Your task to perform on an android device: Open location settings Image 0: 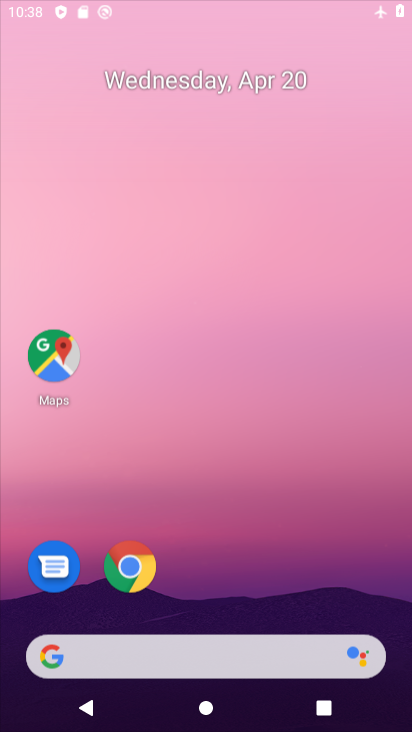
Step 0: click (226, 434)
Your task to perform on an android device: Open location settings Image 1: 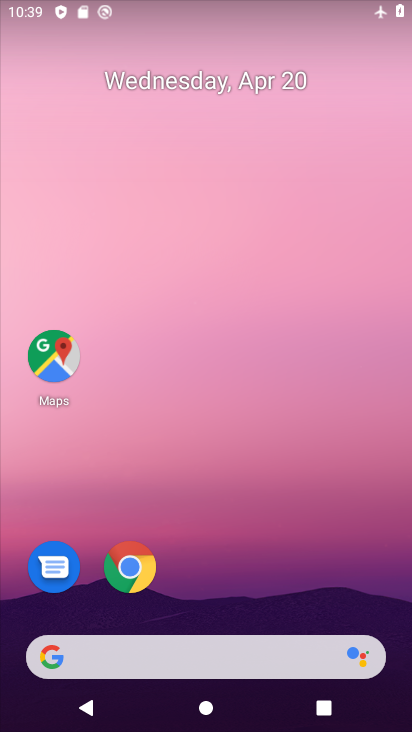
Step 1: drag from (257, 531) to (298, 283)
Your task to perform on an android device: Open location settings Image 2: 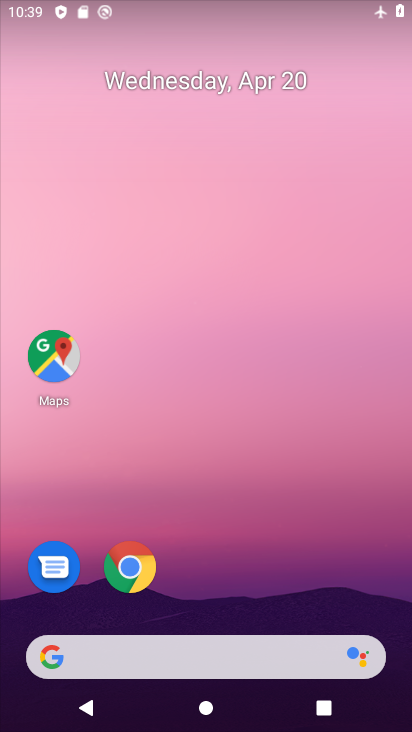
Step 2: drag from (253, 572) to (254, 369)
Your task to perform on an android device: Open location settings Image 3: 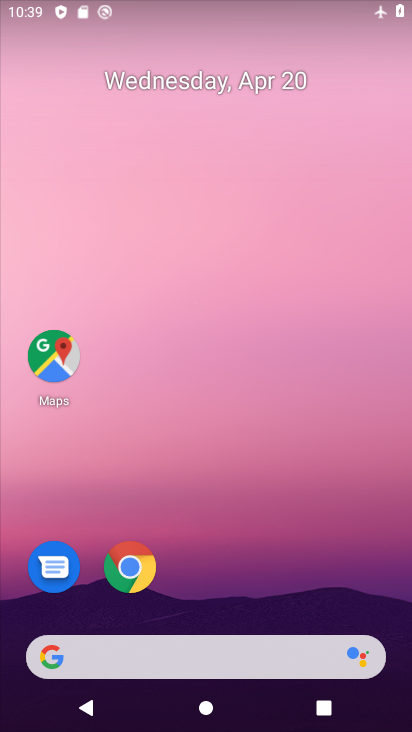
Step 3: drag from (245, 579) to (309, 160)
Your task to perform on an android device: Open location settings Image 4: 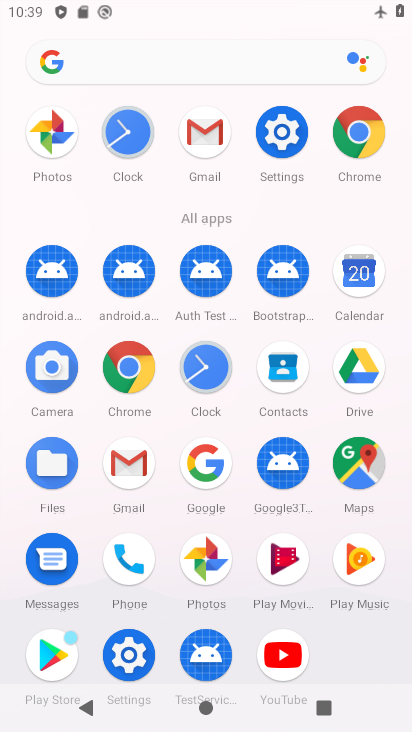
Step 4: click (292, 122)
Your task to perform on an android device: Open location settings Image 5: 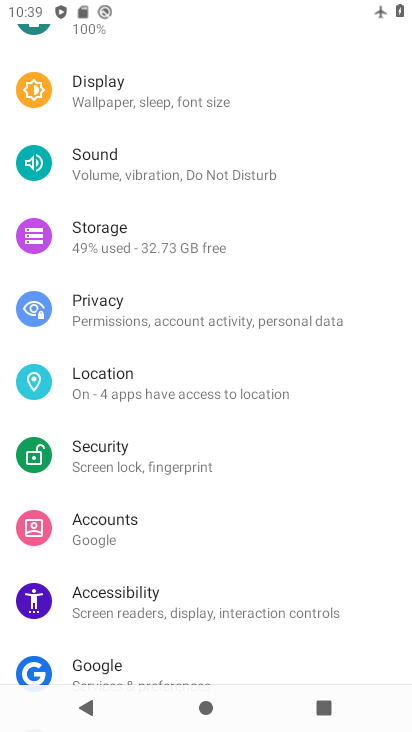
Step 5: click (206, 394)
Your task to perform on an android device: Open location settings Image 6: 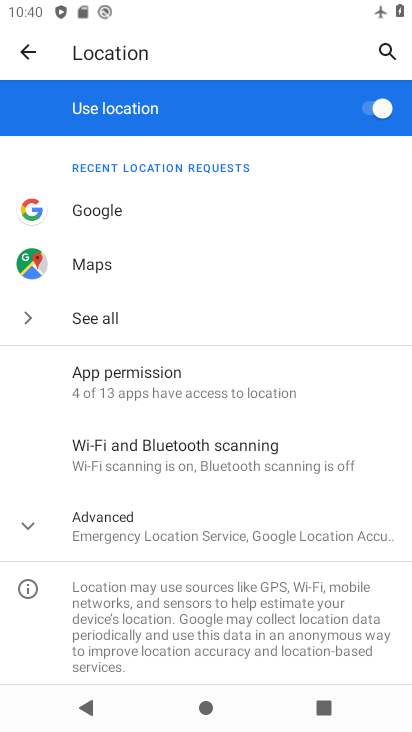
Step 6: drag from (90, 628) to (166, 170)
Your task to perform on an android device: Open location settings Image 7: 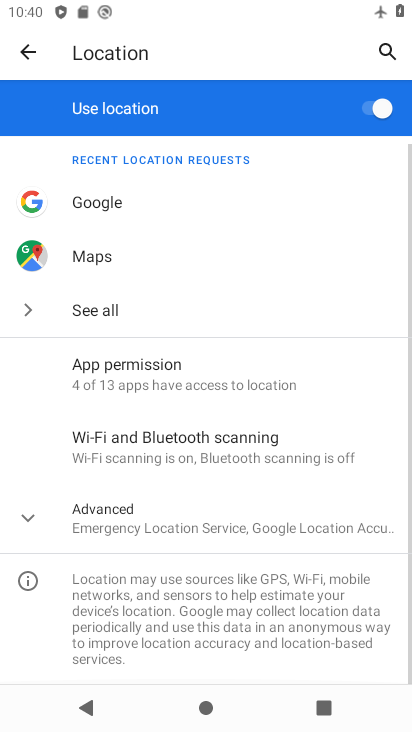
Step 7: click (196, 528)
Your task to perform on an android device: Open location settings Image 8: 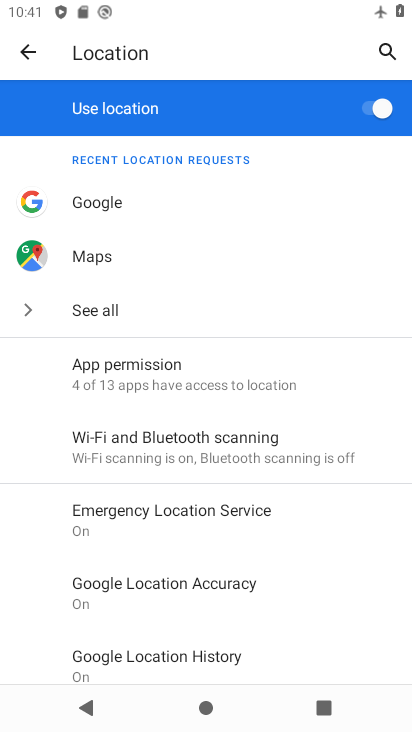
Step 8: task complete